Your task to perform on an android device: see sites visited before in the chrome app Image 0: 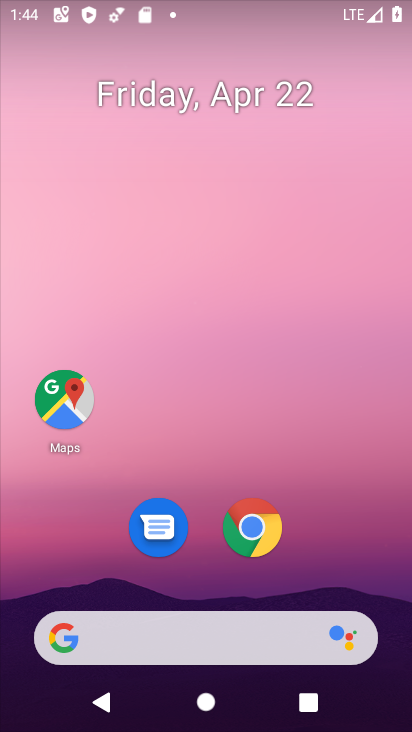
Step 0: click (259, 526)
Your task to perform on an android device: see sites visited before in the chrome app Image 1: 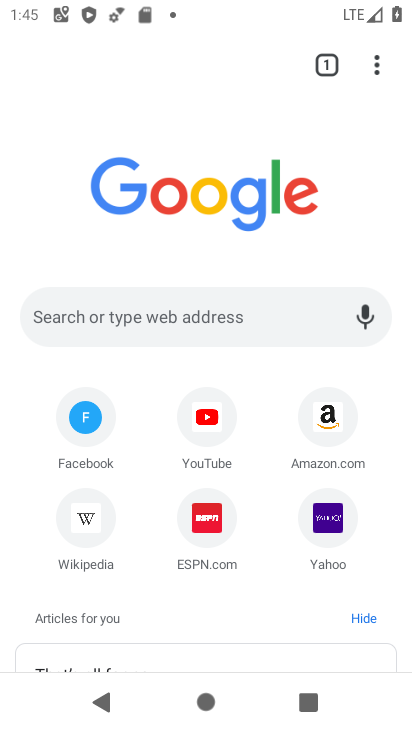
Step 1: task complete